Your task to perform on an android device: open a new tab in the chrome app Image 0: 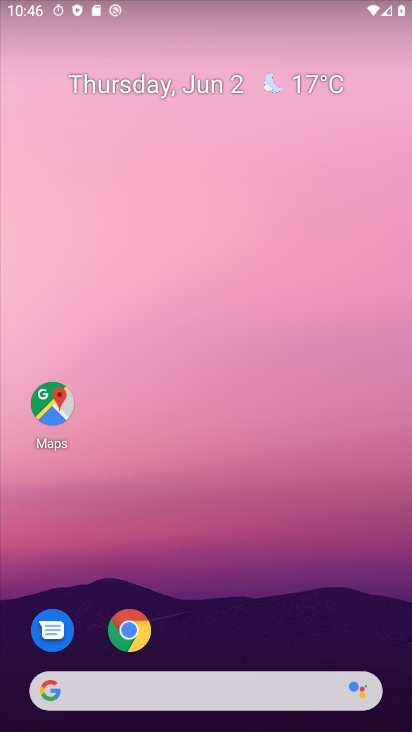
Step 0: click (136, 621)
Your task to perform on an android device: open a new tab in the chrome app Image 1: 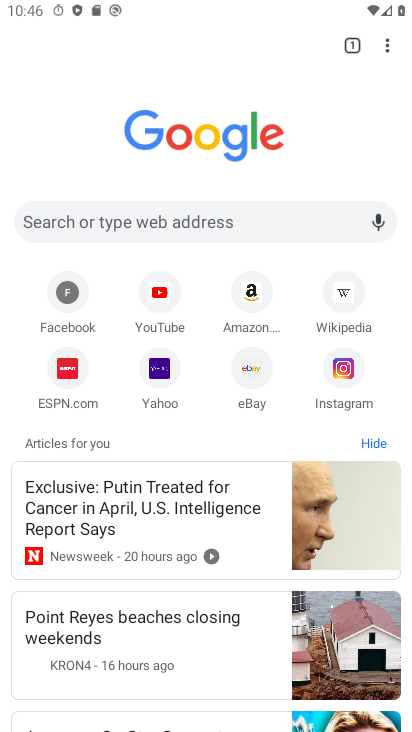
Step 1: click (389, 46)
Your task to perform on an android device: open a new tab in the chrome app Image 2: 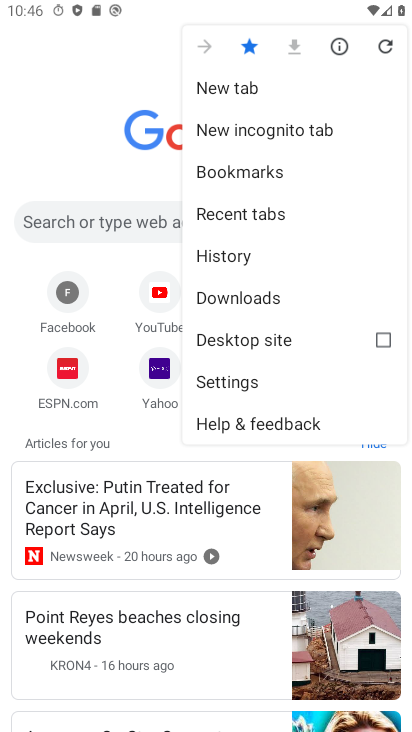
Step 2: click (220, 95)
Your task to perform on an android device: open a new tab in the chrome app Image 3: 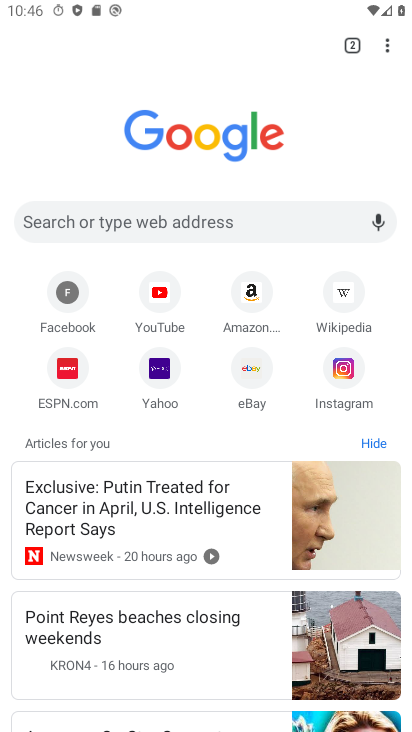
Step 3: task complete